Your task to perform on an android device: delete a single message in the gmail app Image 0: 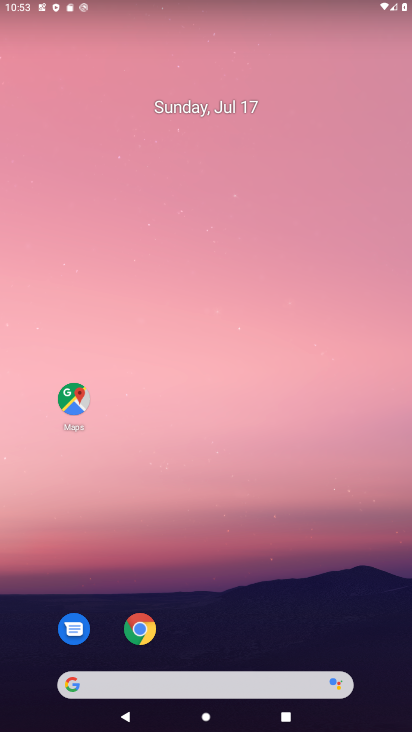
Step 0: drag from (287, 634) to (285, 235)
Your task to perform on an android device: delete a single message in the gmail app Image 1: 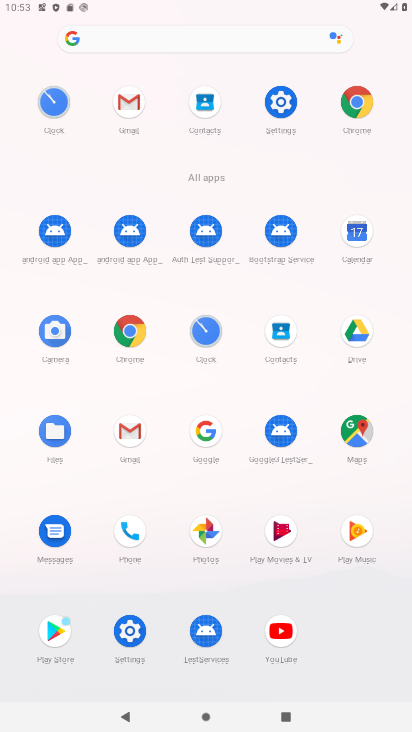
Step 1: click (125, 438)
Your task to perform on an android device: delete a single message in the gmail app Image 2: 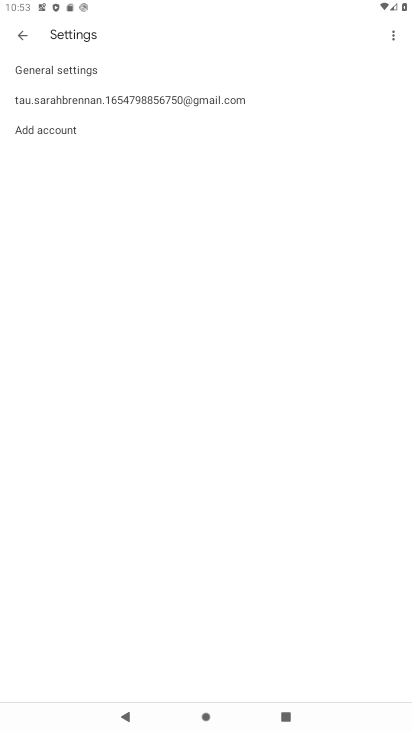
Step 2: click (20, 31)
Your task to perform on an android device: delete a single message in the gmail app Image 3: 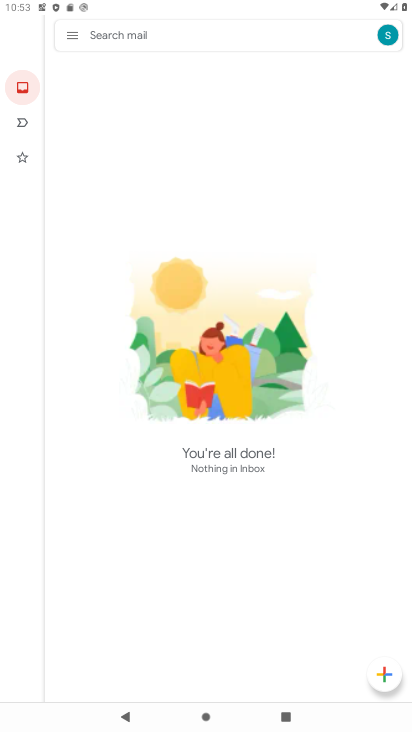
Step 3: click (69, 32)
Your task to perform on an android device: delete a single message in the gmail app Image 4: 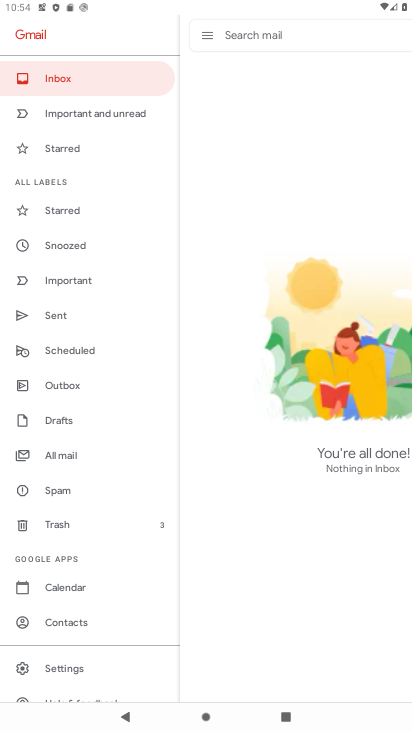
Step 4: click (59, 455)
Your task to perform on an android device: delete a single message in the gmail app Image 5: 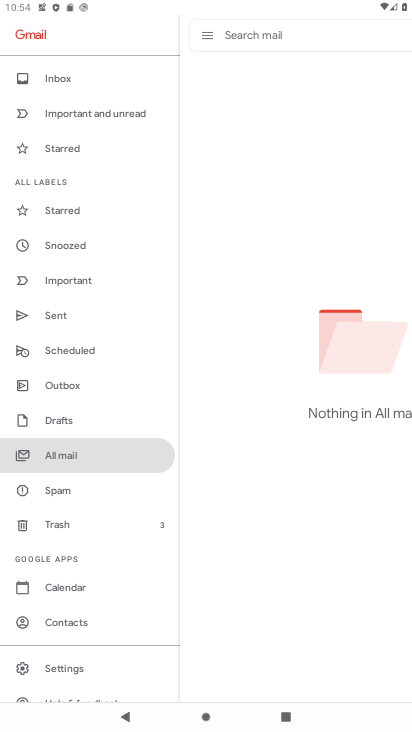
Step 5: task complete